Your task to perform on an android device: Open eBay Image 0: 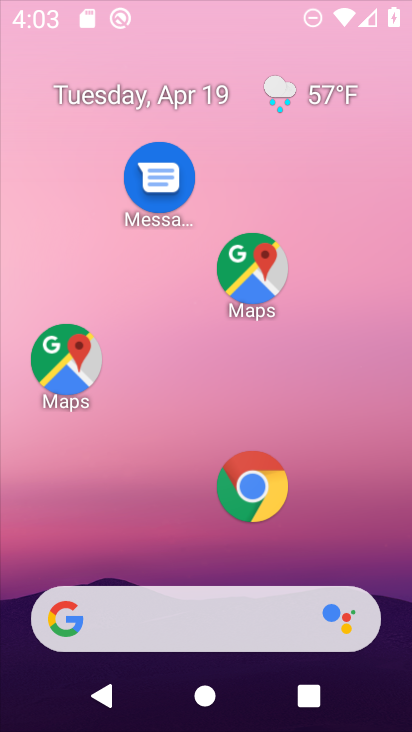
Step 0: drag from (156, 278) to (159, 141)
Your task to perform on an android device: Open eBay Image 1: 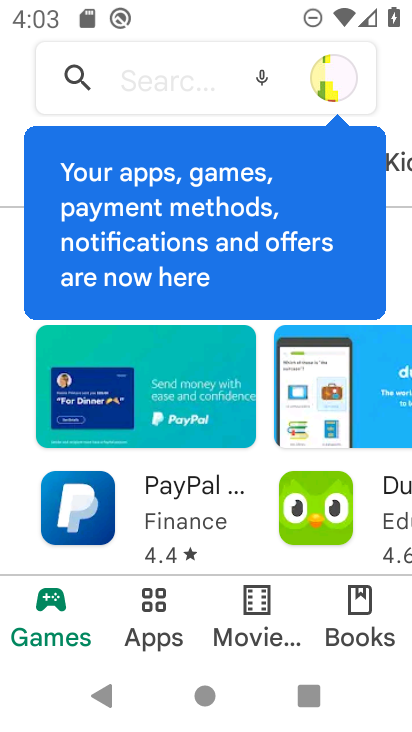
Step 1: task complete